Your task to perform on an android device: What's the weather? Image 0: 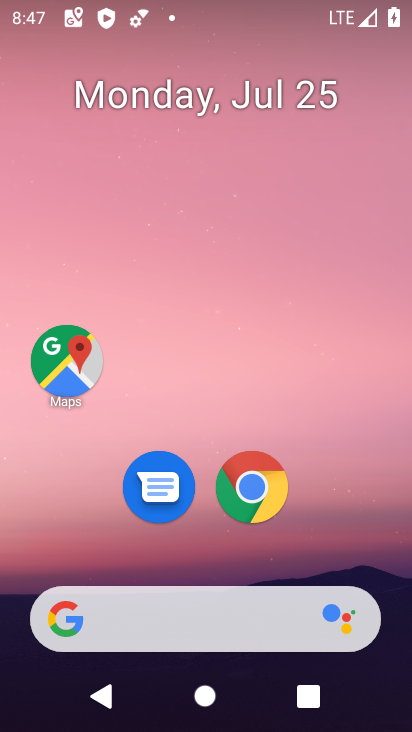
Step 0: click (159, 620)
Your task to perform on an android device: What's the weather? Image 1: 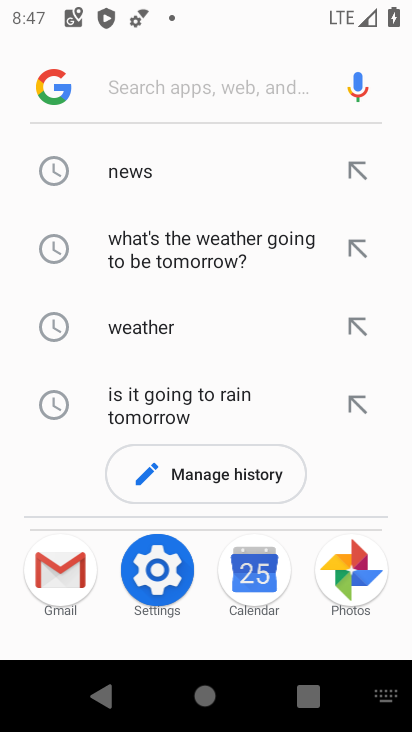
Step 1: click (149, 332)
Your task to perform on an android device: What's the weather? Image 2: 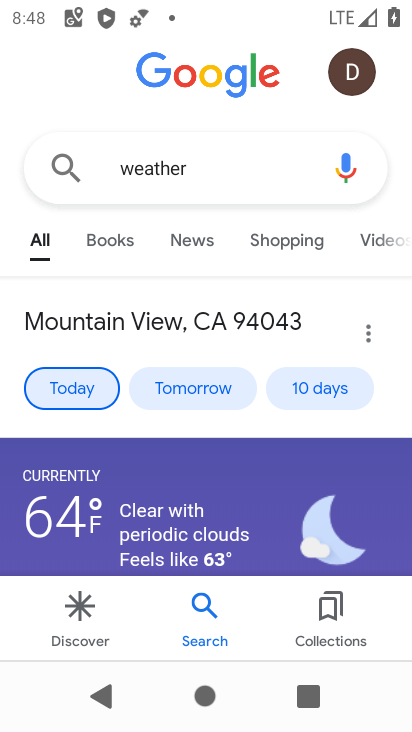
Step 2: task complete